Your task to perform on an android device: What is the news today? Image 0: 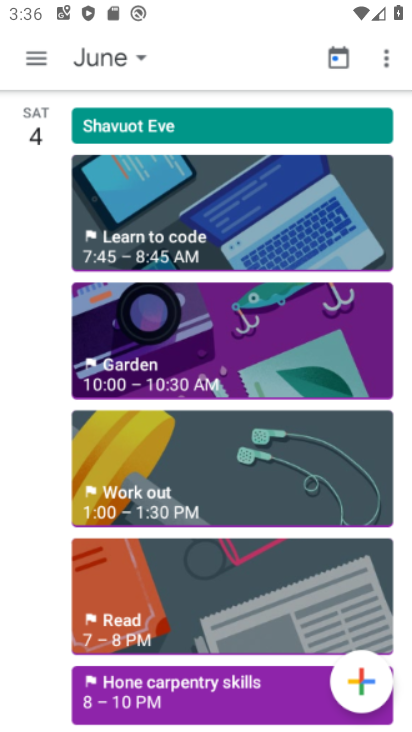
Step 0: press home button
Your task to perform on an android device: What is the news today? Image 1: 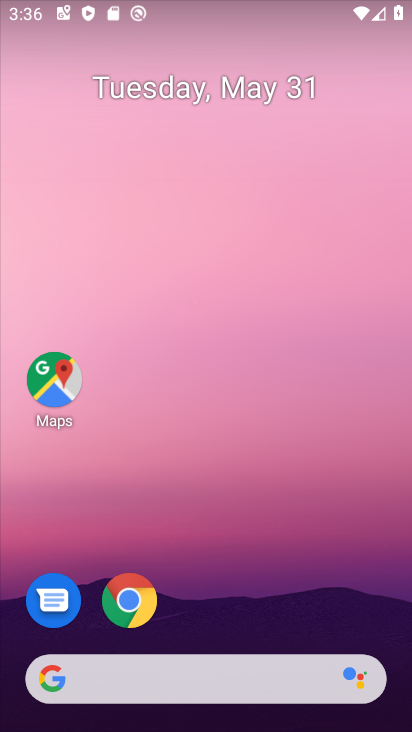
Step 1: task complete